Your task to perform on an android device: View the shopping cart on amazon. Image 0: 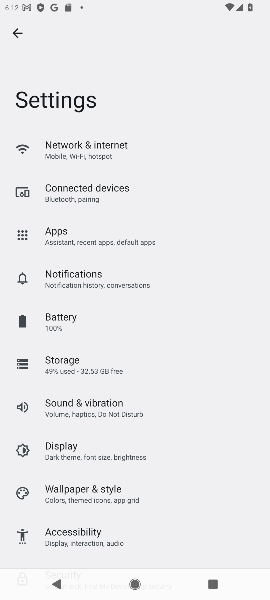
Step 0: press home button
Your task to perform on an android device: View the shopping cart on amazon. Image 1: 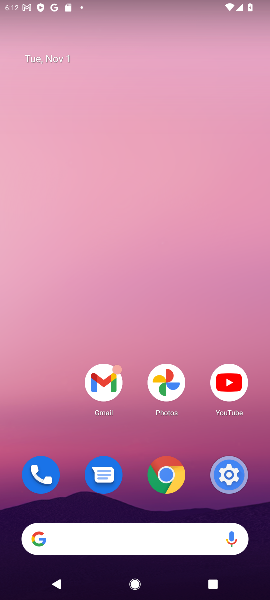
Step 1: click (127, 545)
Your task to perform on an android device: View the shopping cart on amazon. Image 2: 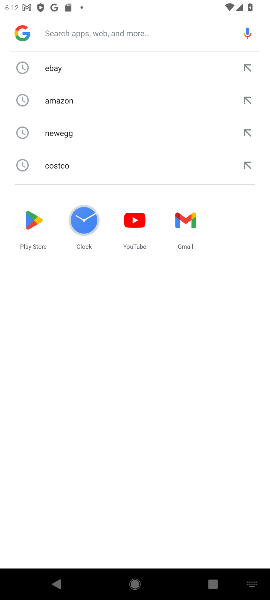
Step 2: type "amazon"
Your task to perform on an android device: View the shopping cart on amazon. Image 3: 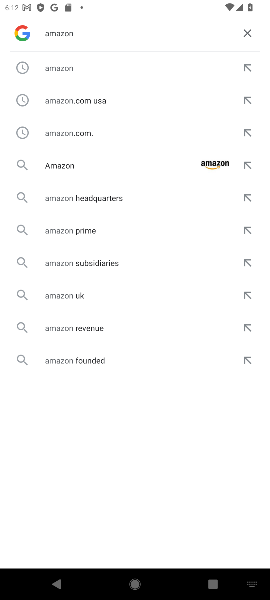
Step 3: click (86, 164)
Your task to perform on an android device: View the shopping cart on amazon. Image 4: 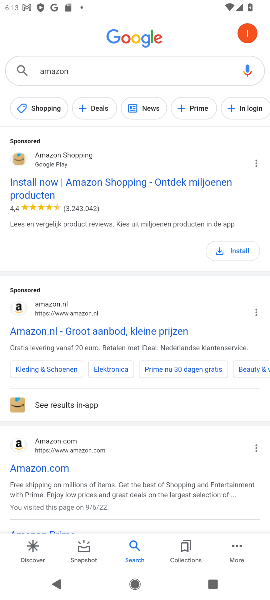
Step 4: click (53, 328)
Your task to perform on an android device: View the shopping cart on amazon. Image 5: 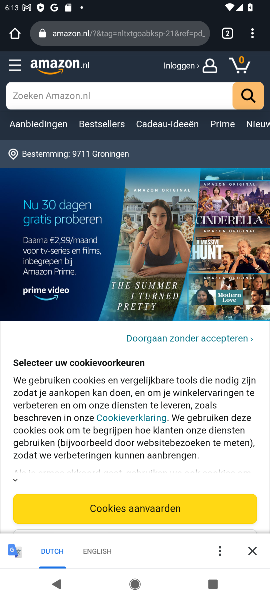
Step 5: click (250, 553)
Your task to perform on an android device: View the shopping cart on amazon. Image 6: 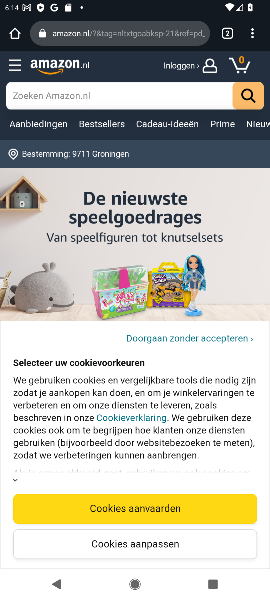
Step 6: click (243, 62)
Your task to perform on an android device: View the shopping cart on amazon. Image 7: 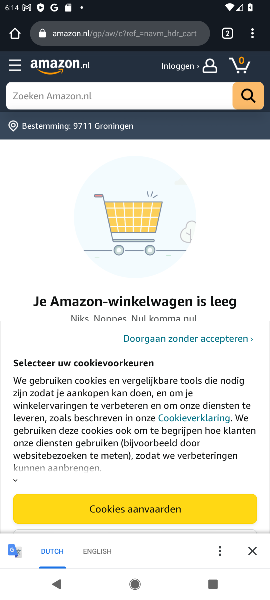
Step 7: task complete